Your task to perform on an android device: set default search engine in the chrome app Image 0: 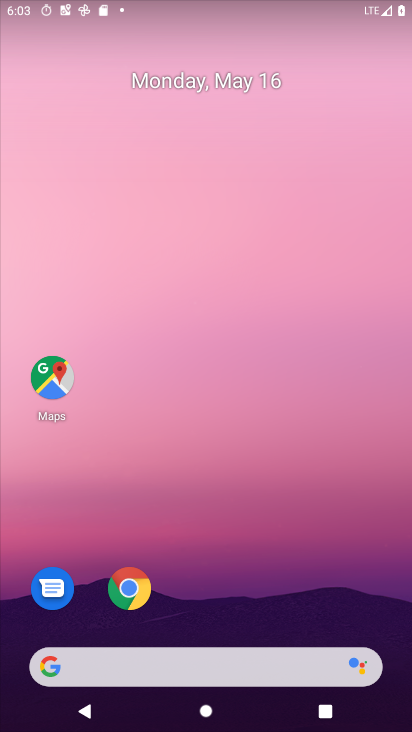
Step 0: click (125, 580)
Your task to perform on an android device: set default search engine in the chrome app Image 1: 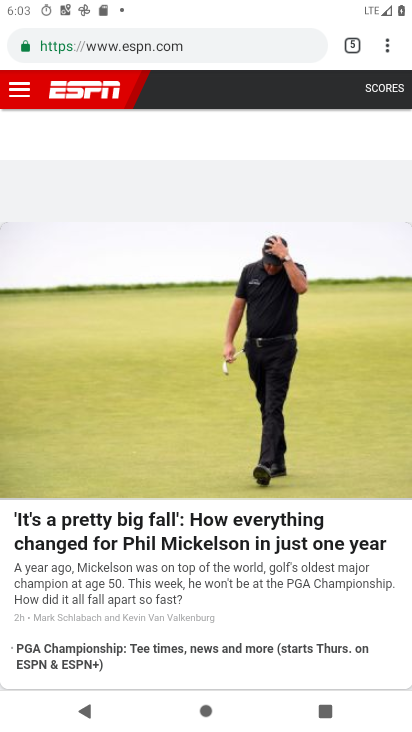
Step 1: click (383, 53)
Your task to perform on an android device: set default search engine in the chrome app Image 2: 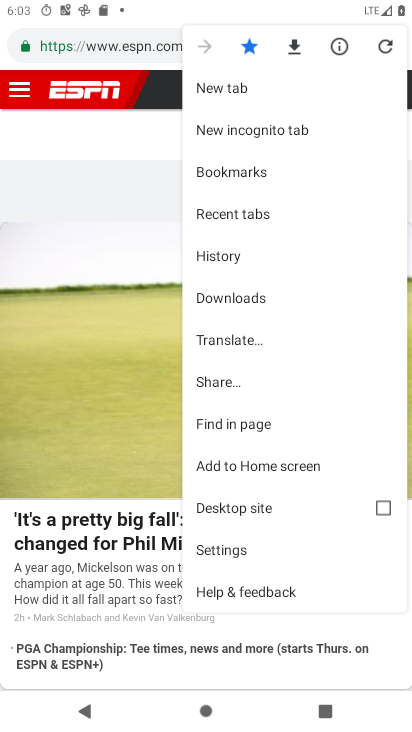
Step 2: click (233, 557)
Your task to perform on an android device: set default search engine in the chrome app Image 3: 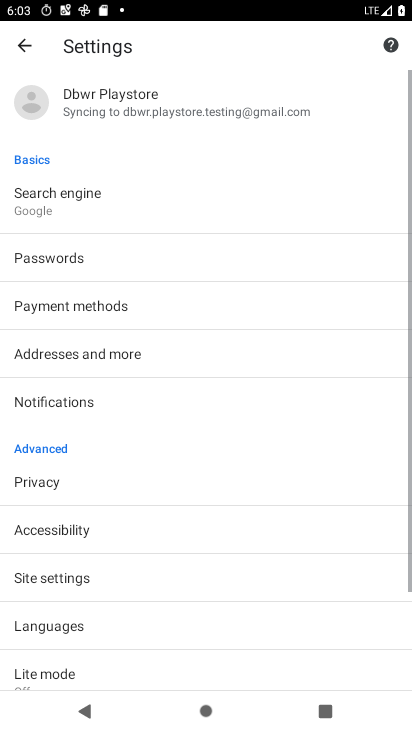
Step 3: click (80, 188)
Your task to perform on an android device: set default search engine in the chrome app Image 4: 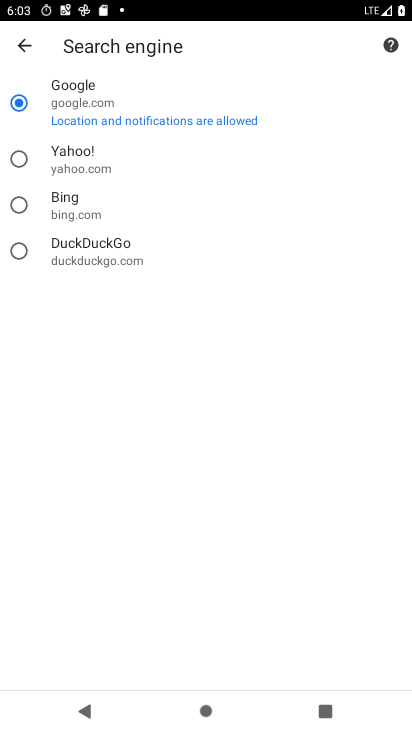
Step 4: click (200, 99)
Your task to perform on an android device: set default search engine in the chrome app Image 5: 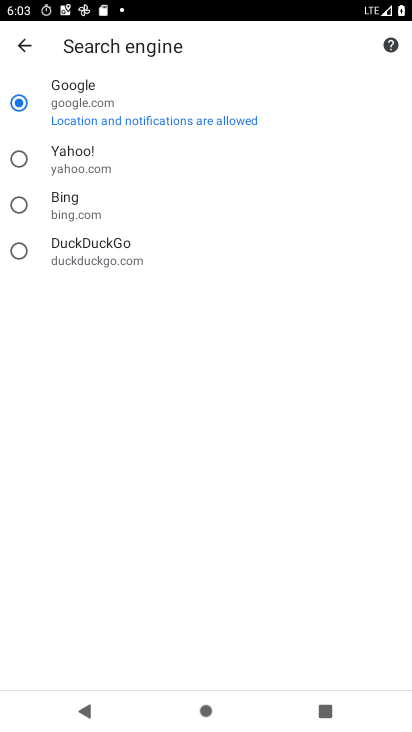
Step 5: task complete